Your task to perform on an android device: open app "Google News" Image 0: 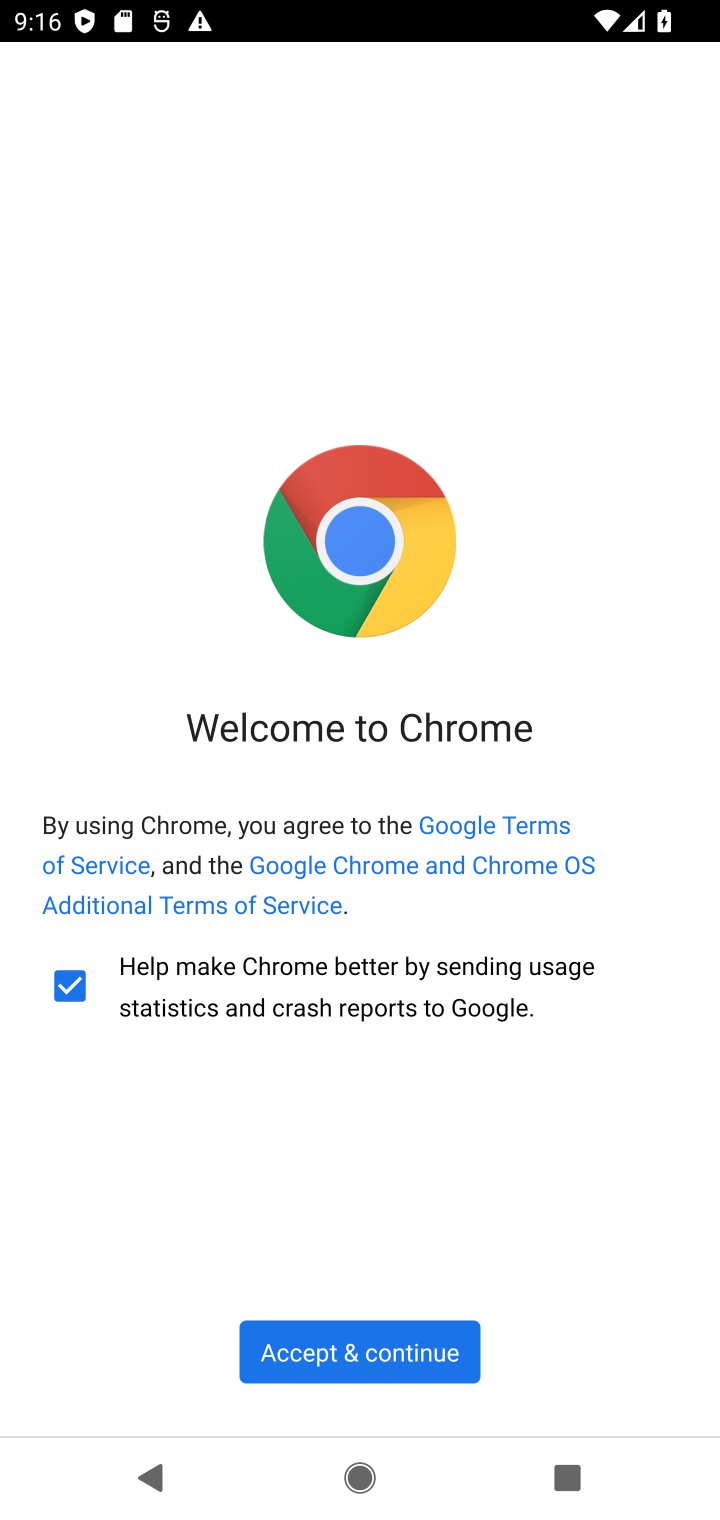
Step 0: press home button
Your task to perform on an android device: open app "Google News" Image 1: 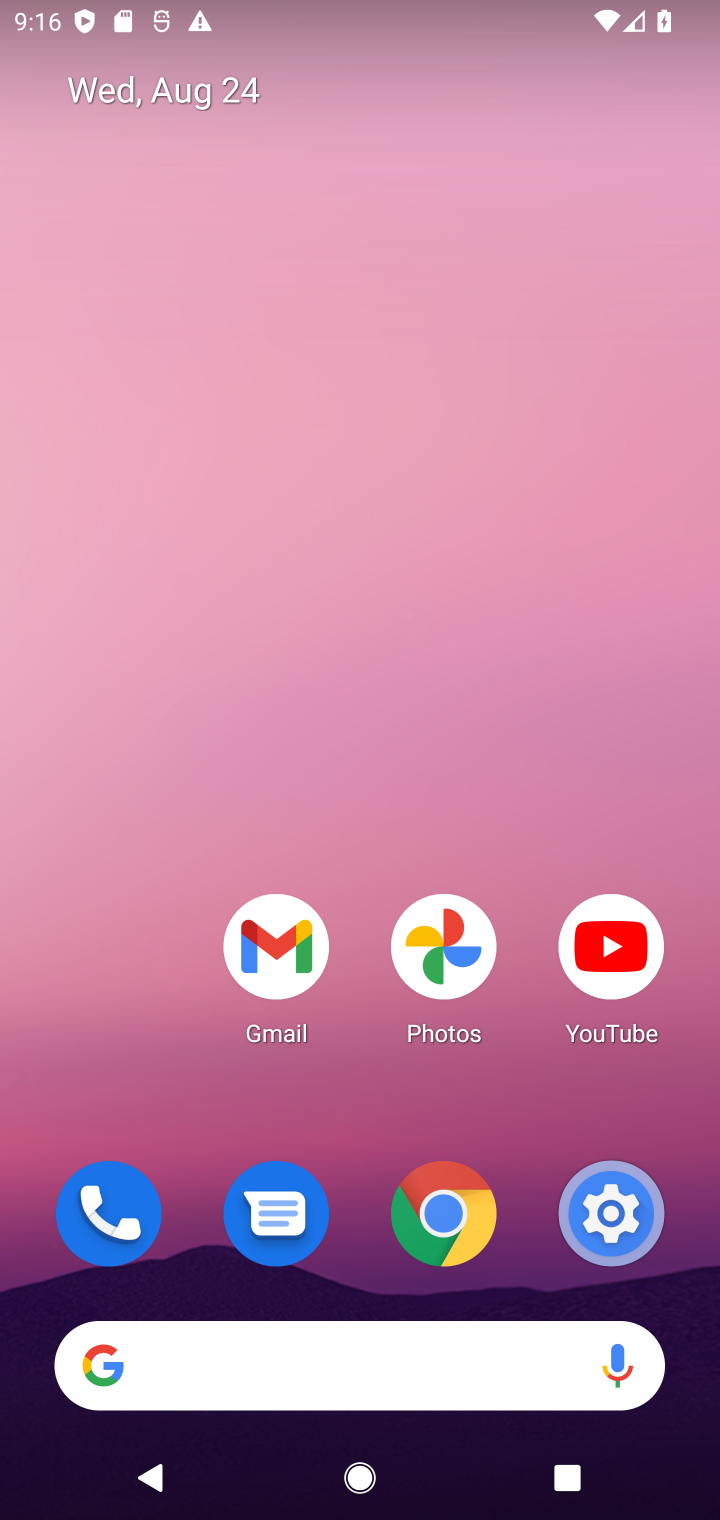
Step 1: drag from (323, 1087) to (539, 10)
Your task to perform on an android device: open app "Google News" Image 2: 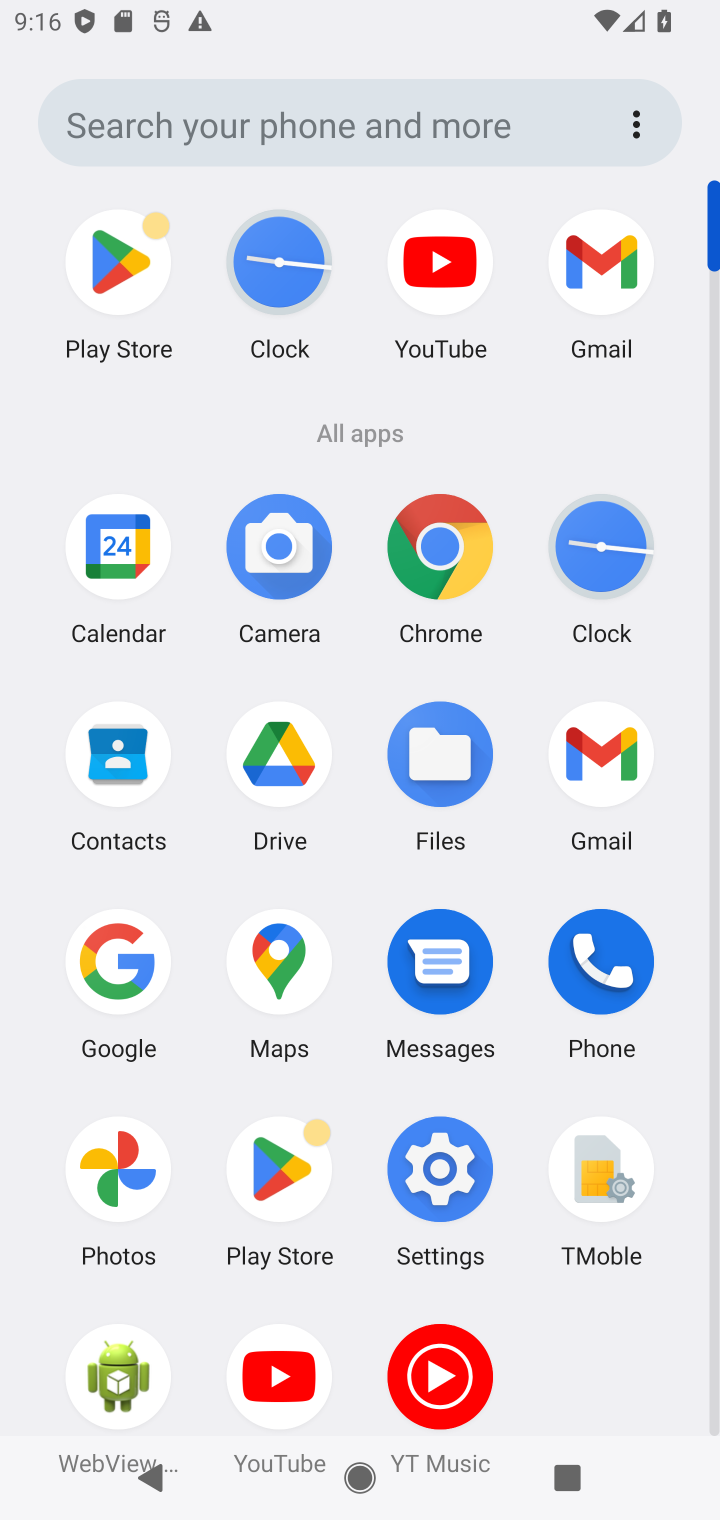
Step 2: click (285, 1165)
Your task to perform on an android device: open app "Google News" Image 3: 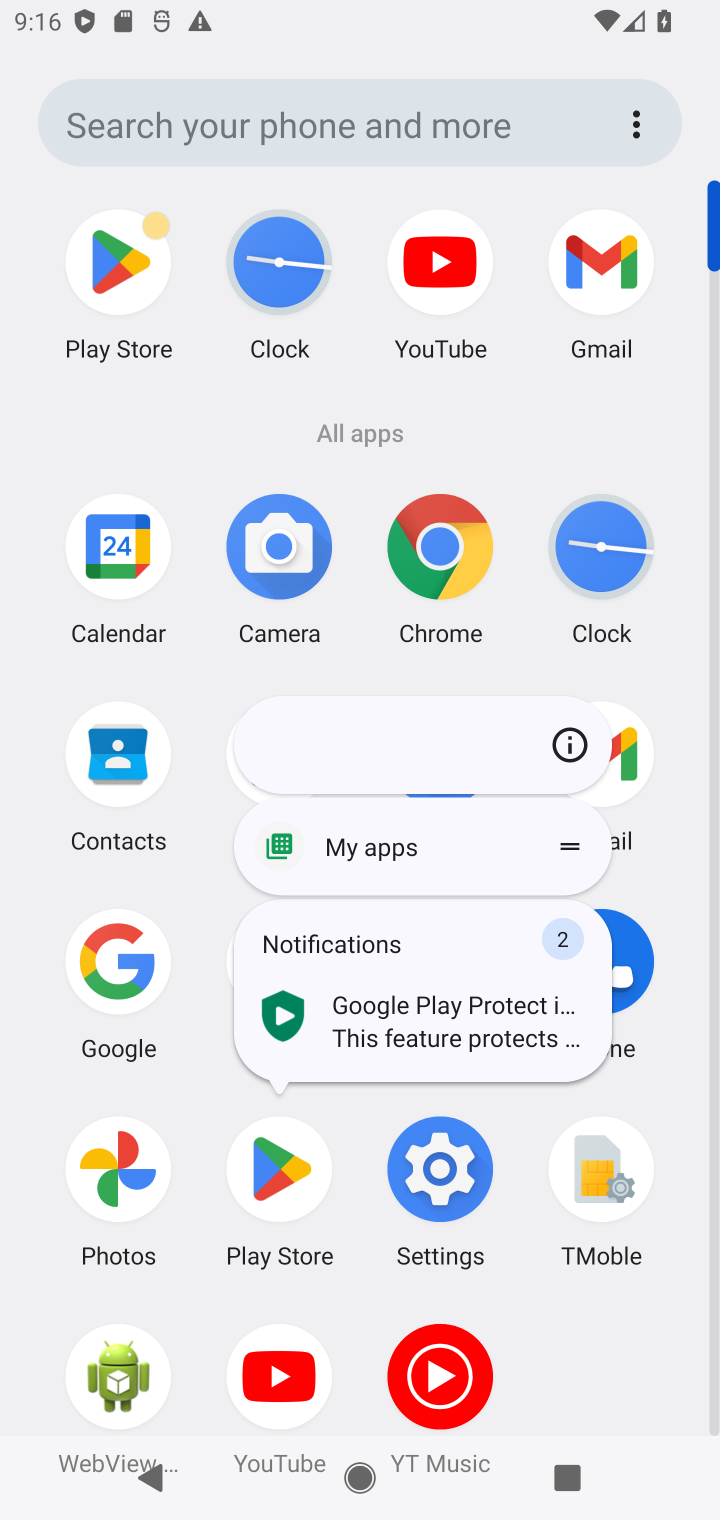
Step 3: click (283, 1206)
Your task to perform on an android device: open app "Google News" Image 4: 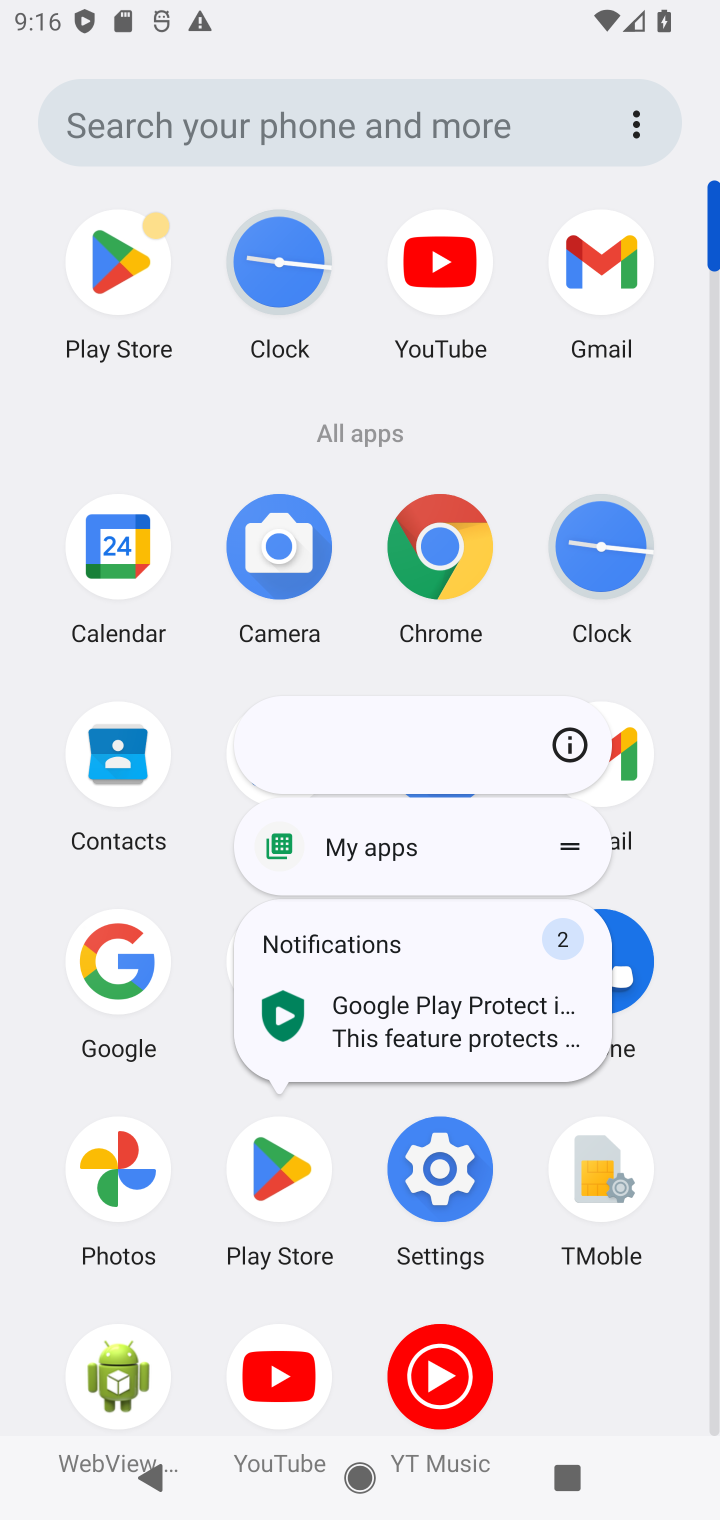
Step 4: click (281, 1187)
Your task to perform on an android device: open app "Google News" Image 5: 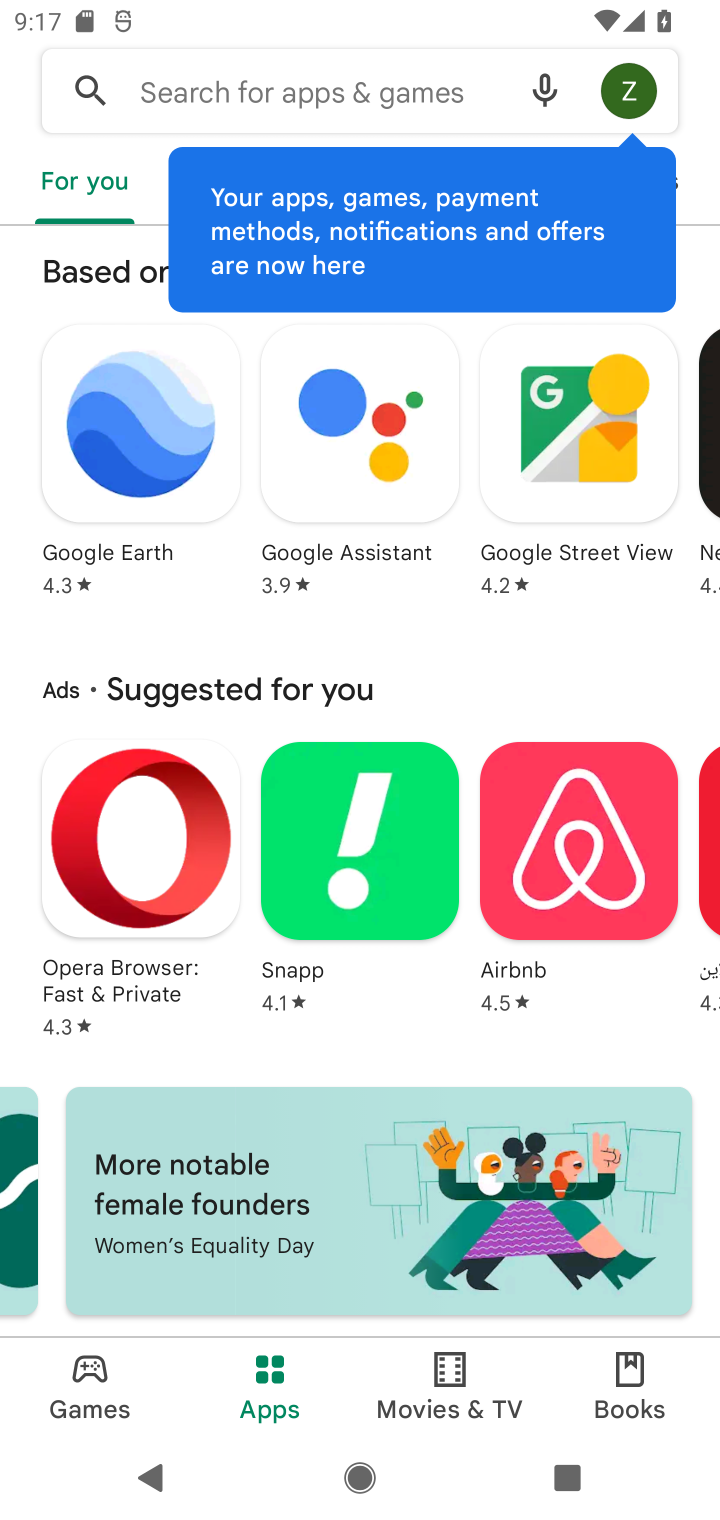
Step 5: click (295, 95)
Your task to perform on an android device: open app "Google News" Image 6: 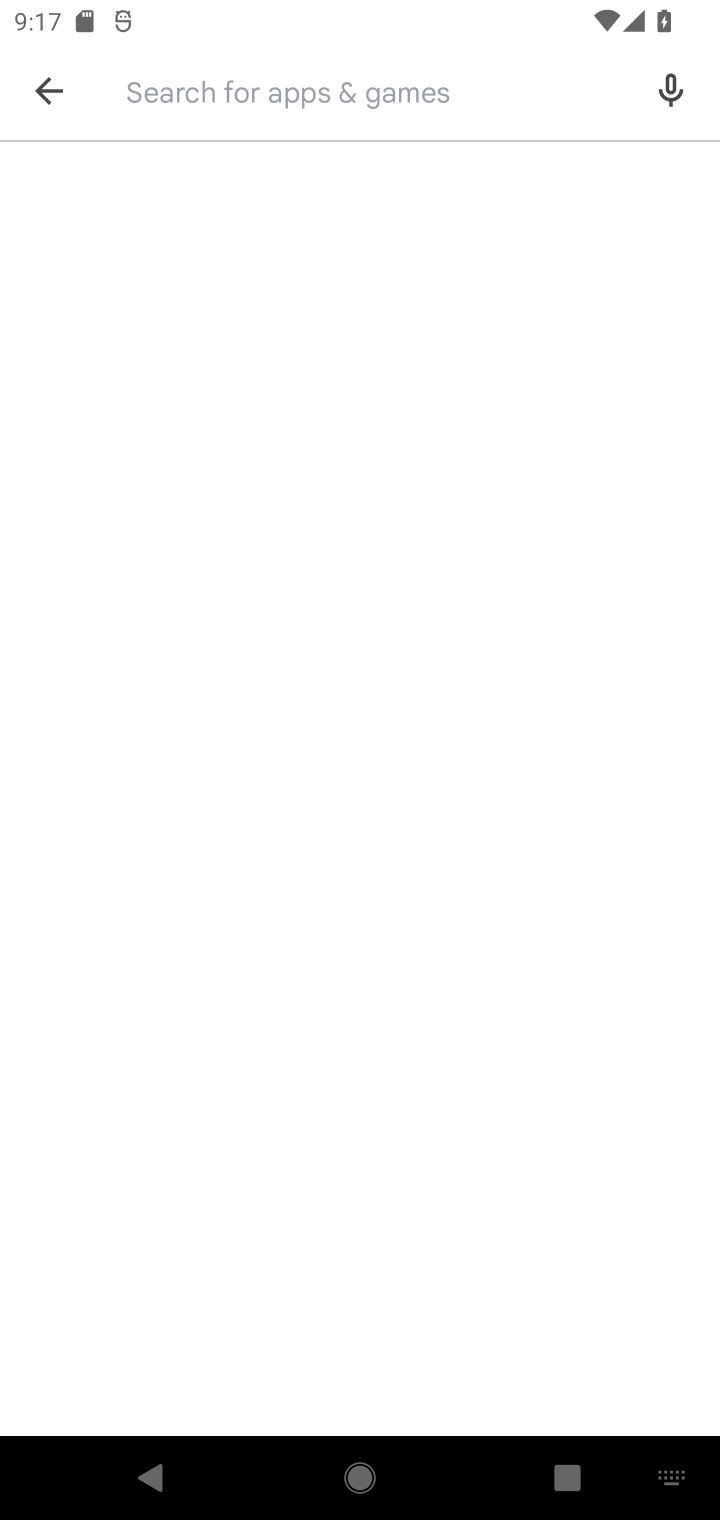
Step 6: type "google news"
Your task to perform on an android device: open app "Google News" Image 7: 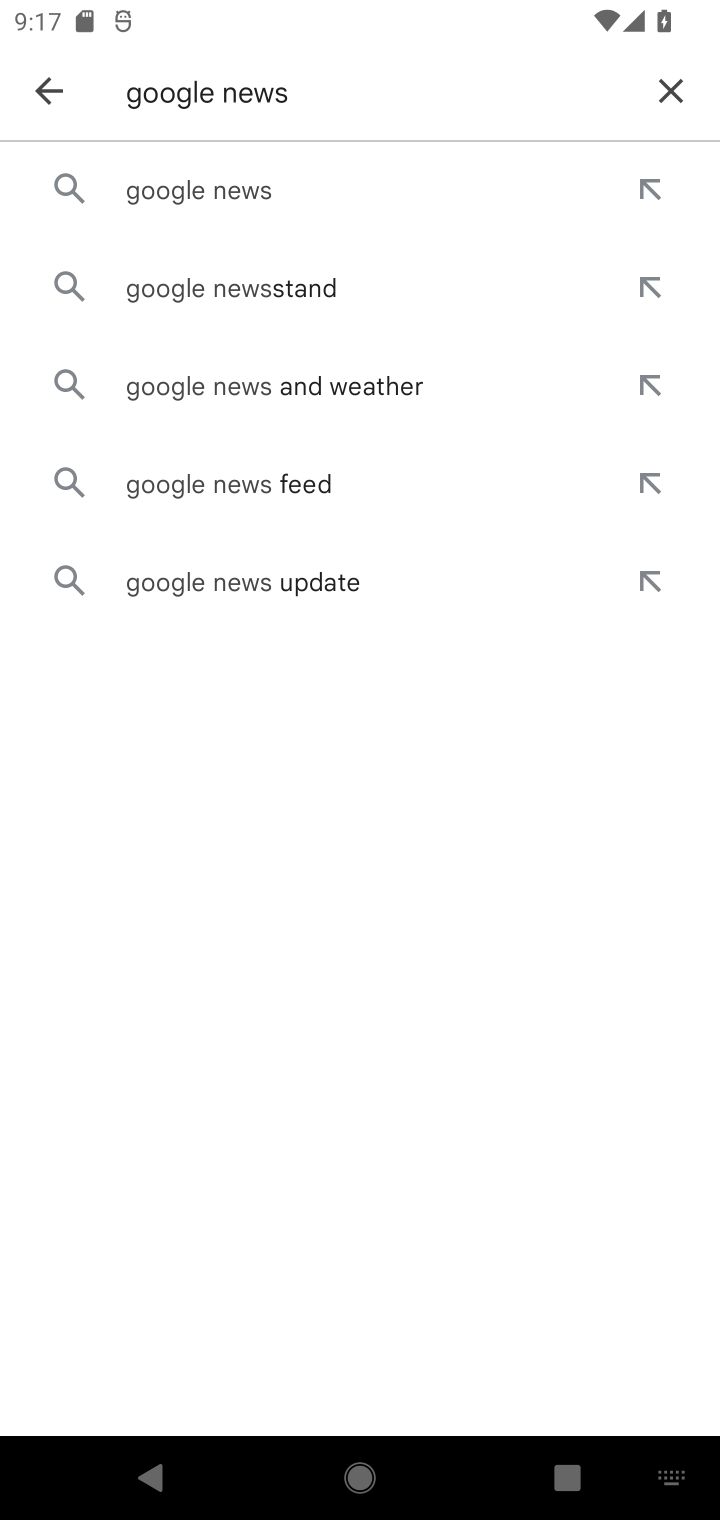
Step 7: click (243, 186)
Your task to perform on an android device: open app "Google News" Image 8: 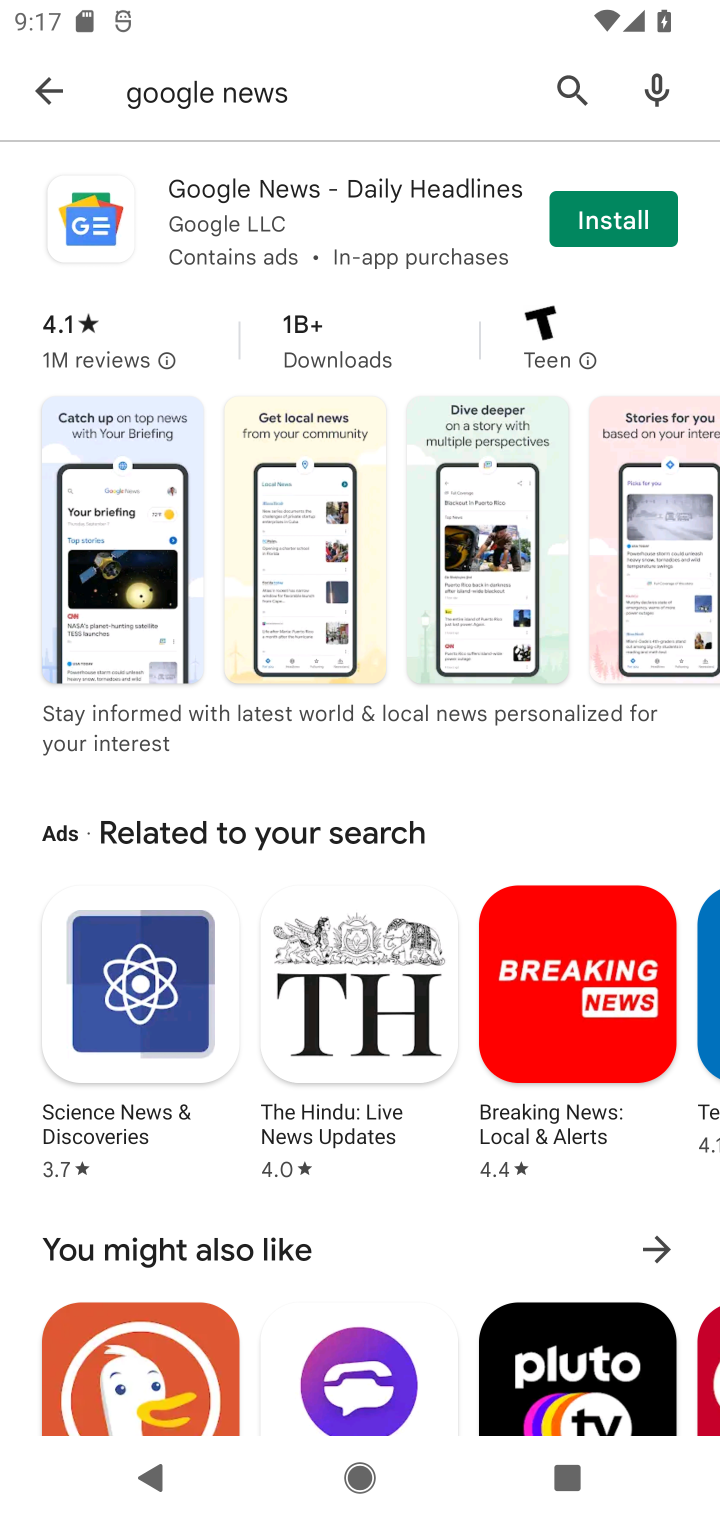
Step 8: task complete